Your task to perform on an android device: What's on my calendar tomorrow? Image 0: 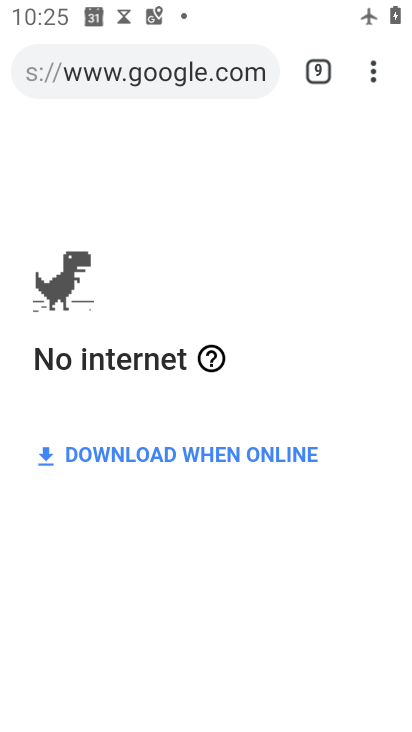
Step 0: press home button
Your task to perform on an android device: What's on my calendar tomorrow? Image 1: 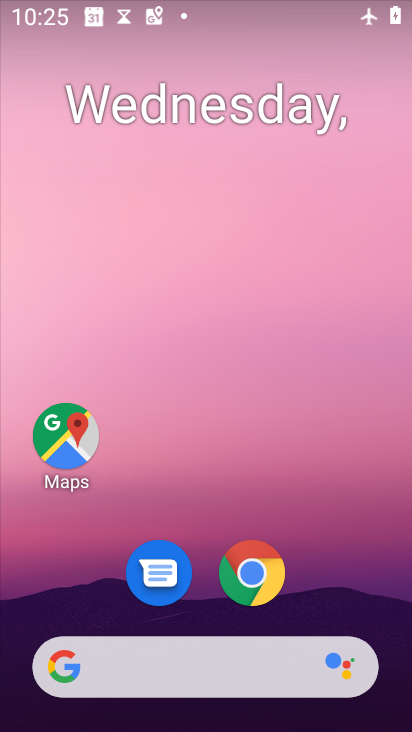
Step 1: drag from (292, 576) to (321, 262)
Your task to perform on an android device: What's on my calendar tomorrow? Image 2: 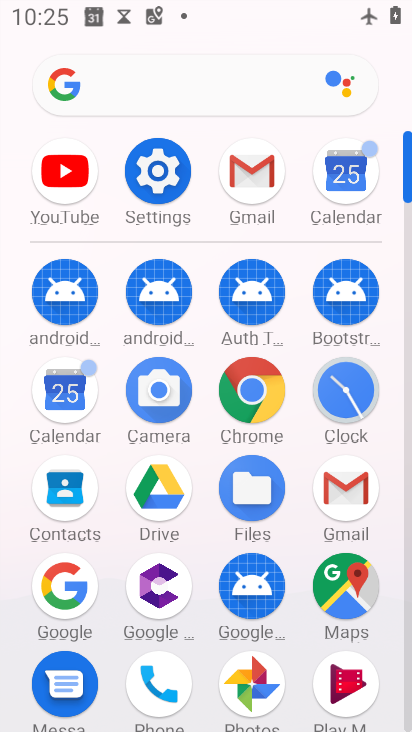
Step 2: click (67, 383)
Your task to perform on an android device: What's on my calendar tomorrow? Image 3: 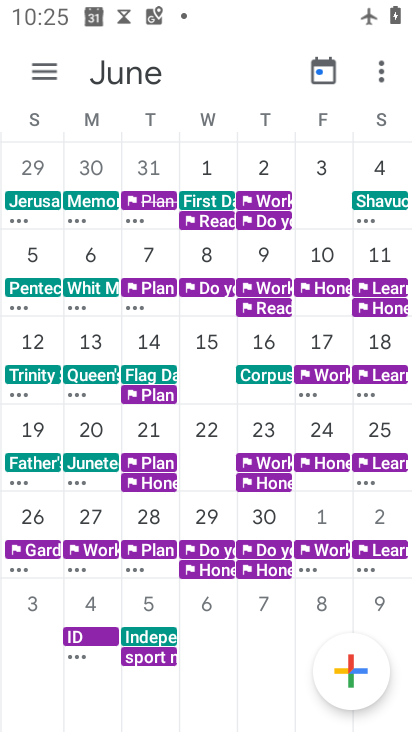
Step 3: click (41, 61)
Your task to perform on an android device: What's on my calendar tomorrow? Image 4: 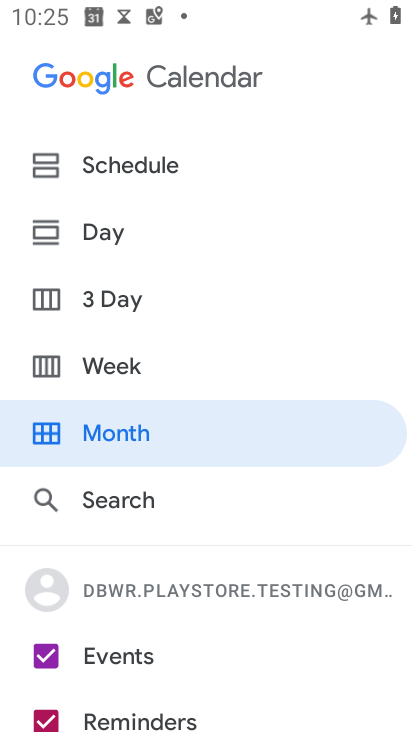
Step 4: click (135, 429)
Your task to perform on an android device: What's on my calendar tomorrow? Image 5: 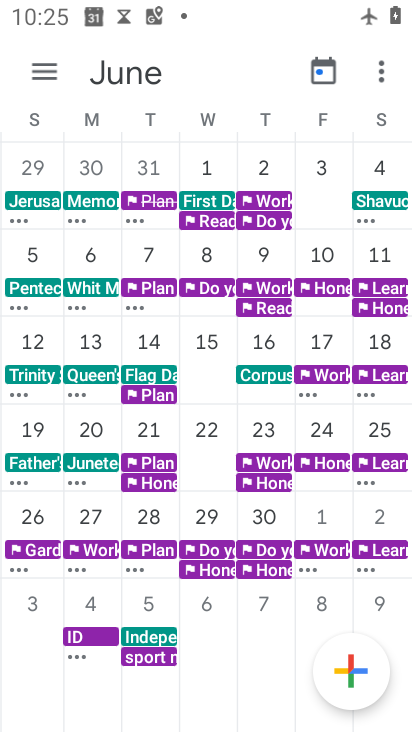
Step 5: drag from (43, 363) to (333, 349)
Your task to perform on an android device: What's on my calendar tomorrow? Image 6: 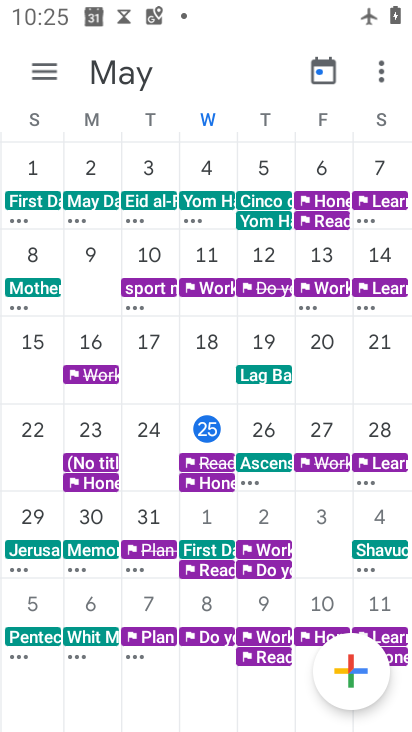
Step 6: click (319, 423)
Your task to perform on an android device: What's on my calendar tomorrow? Image 7: 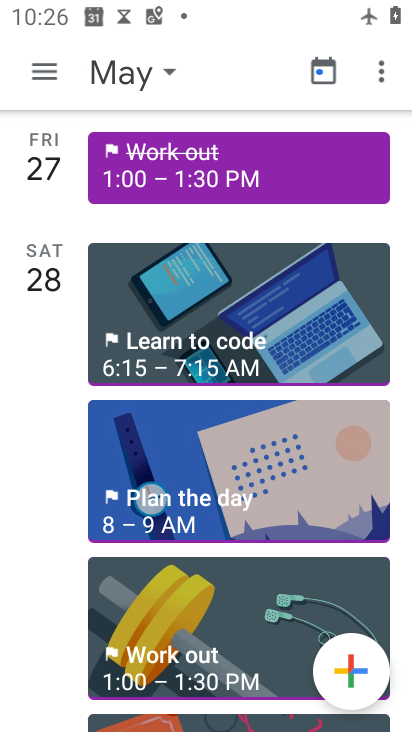
Step 7: task complete